Your task to perform on an android device: uninstall "Expedia: Hotels, Flights & Car" Image 0: 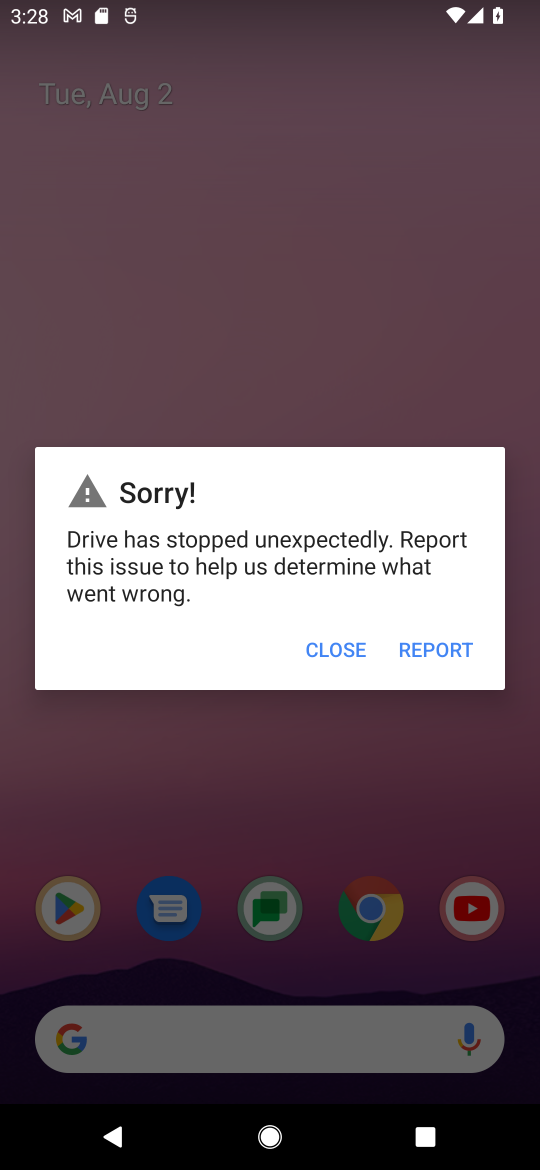
Step 0: press home button
Your task to perform on an android device: uninstall "Expedia: Hotels, Flights & Car" Image 1: 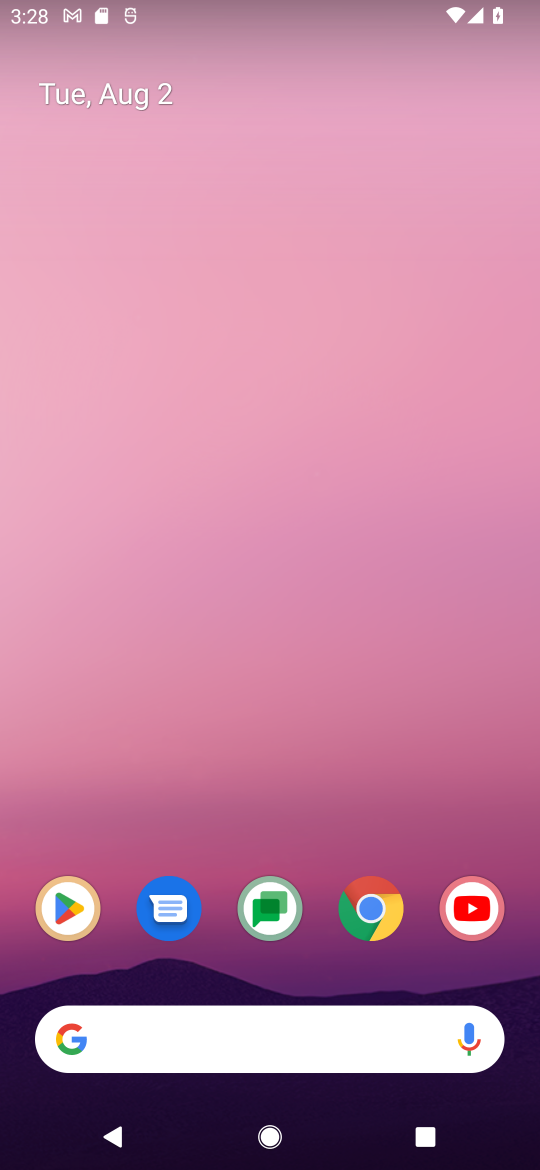
Step 1: click (68, 918)
Your task to perform on an android device: uninstall "Expedia: Hotels, Flights & Car" Image 2: 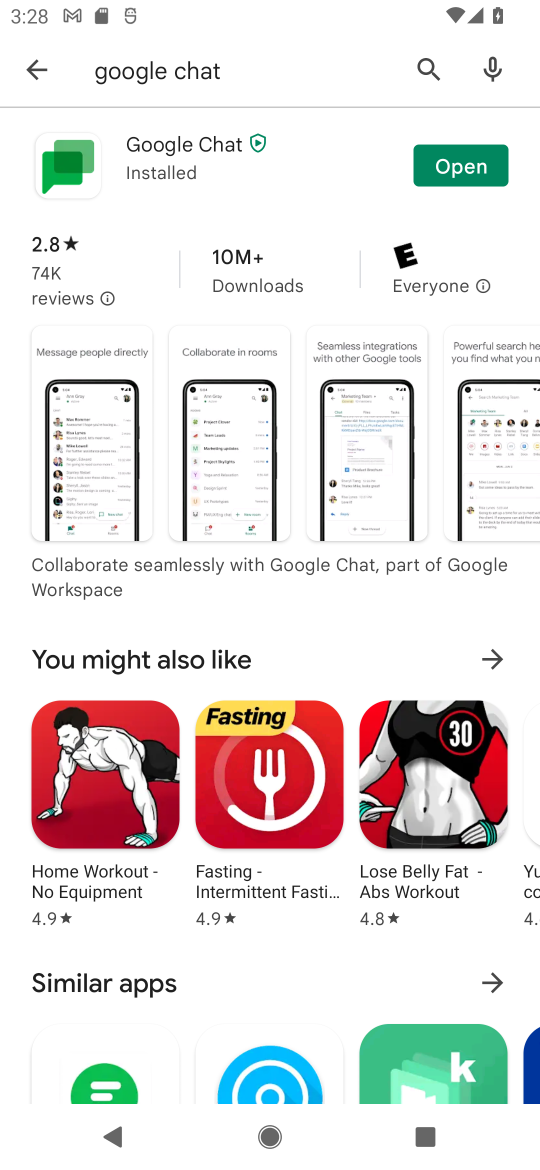
Step 2: click (429, 72)
Your task to perform on an android device: uninstall "Expedia: Hotels, Flights & Car" Image 3: 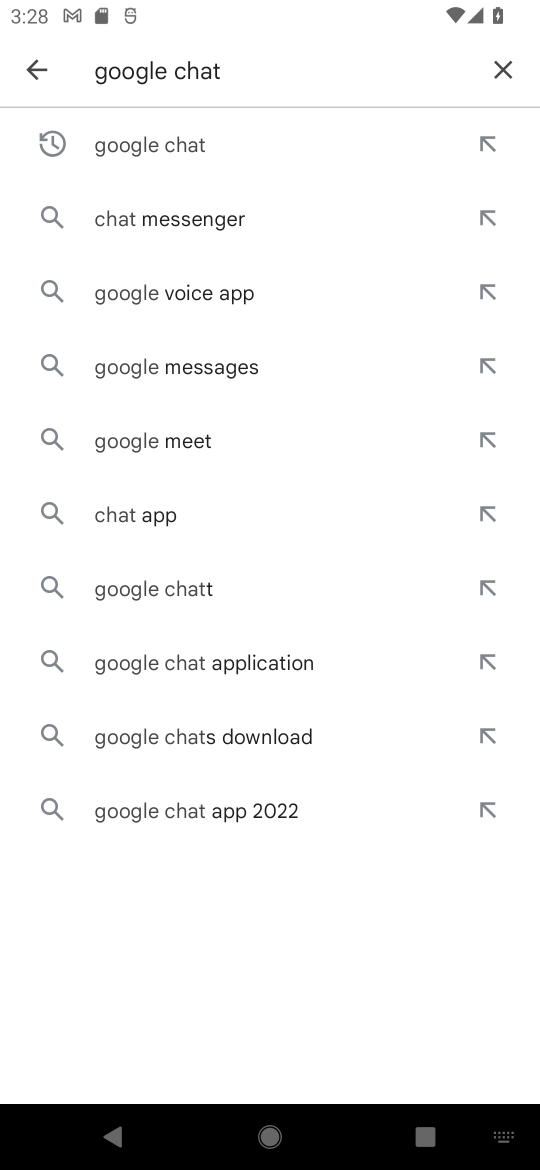
Step 3: click (508, 65)
Your task to perform on an android device: uninstall "Expedia: Hotels, Flights & Car" Image 4: 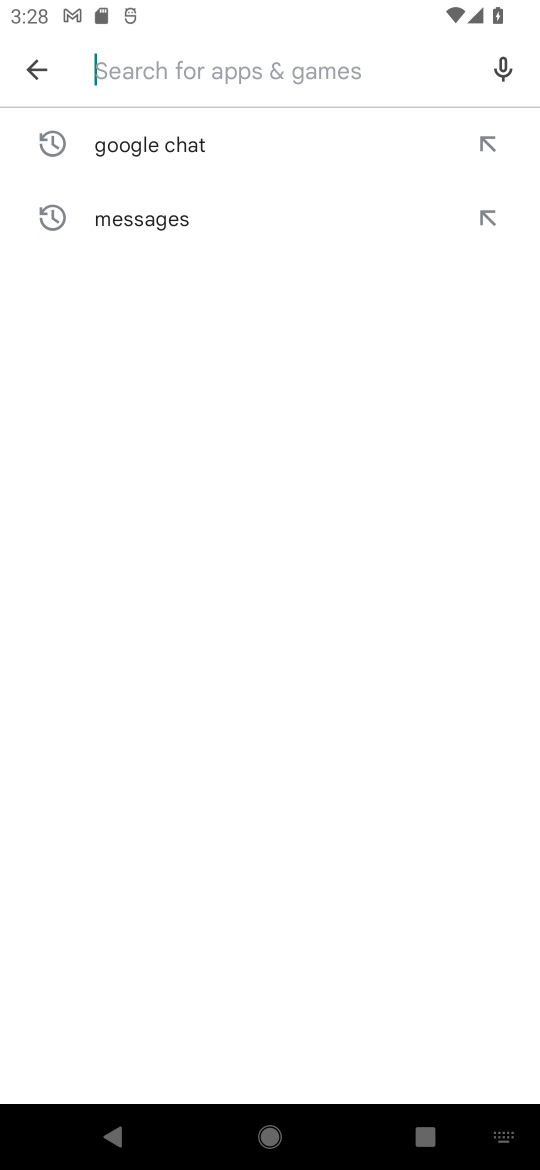
Step 4: type "Expedia: Hotels, Flights & Car"
Your task to perform on an android device: uninstall "Expedia: Hotels, Flights & Car" Image 5: 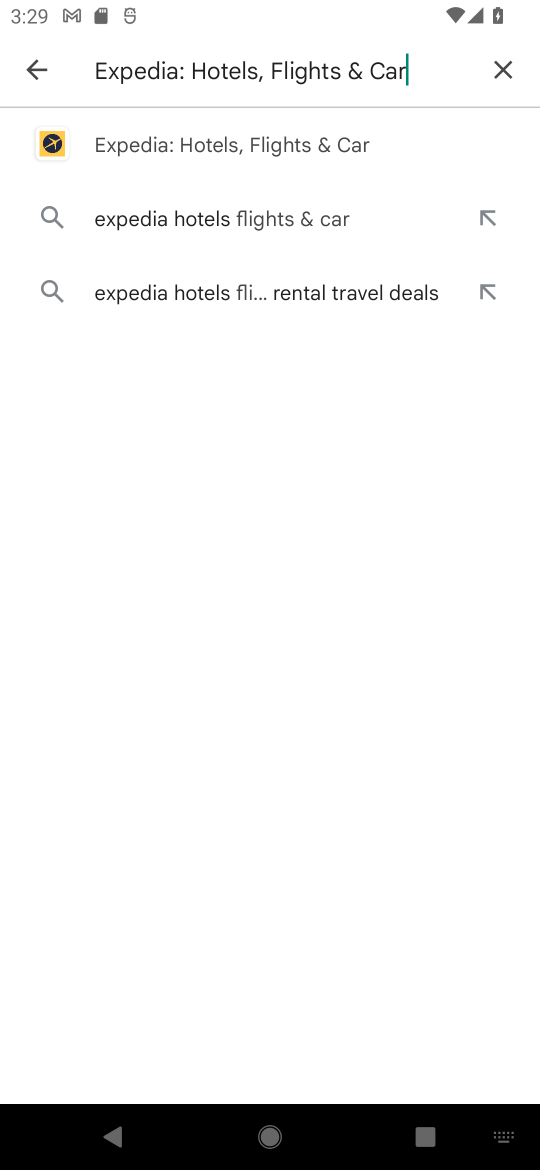
Step 5: click (286, 134)
Your task to perform on an android device: uninstall "Expedia: Hotels, Flights & Car" Image 6: 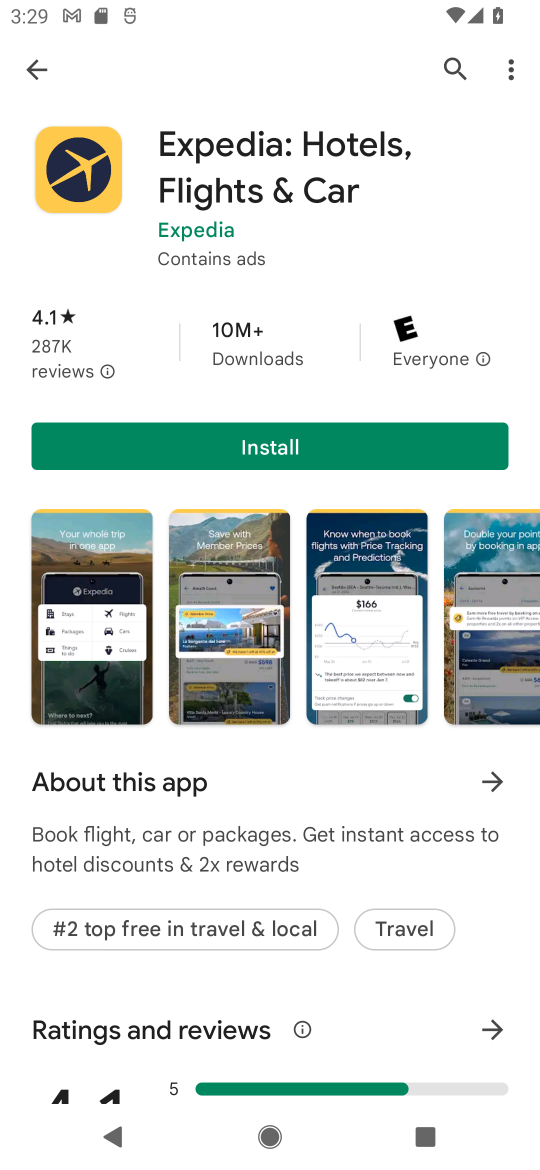
Step 6: task complete